Your task to perform on an android device: Play the last video I watched on Youtube Image 0: 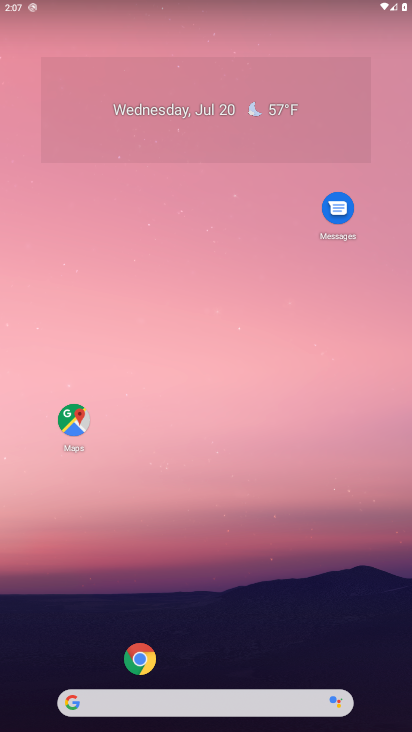
Step 0: drag from (157, 459) to (310, 85)
Your task to perform on an android device: Play the last video I watched on Youtube Image 1: 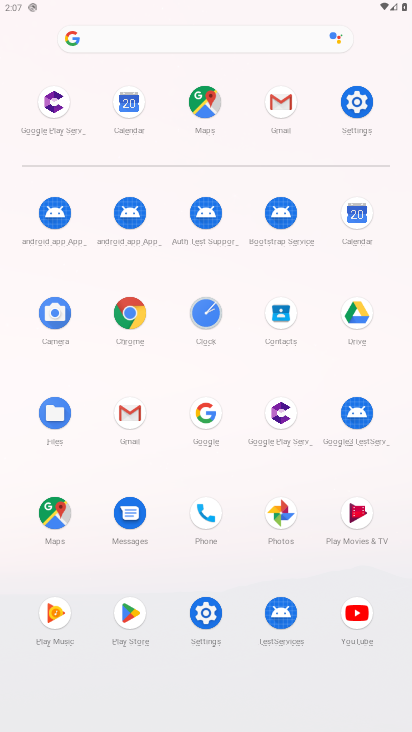
Step 1: click (378, 620)
Your task to perform on an android device: Play the last video I watched on Youtube Image 2: 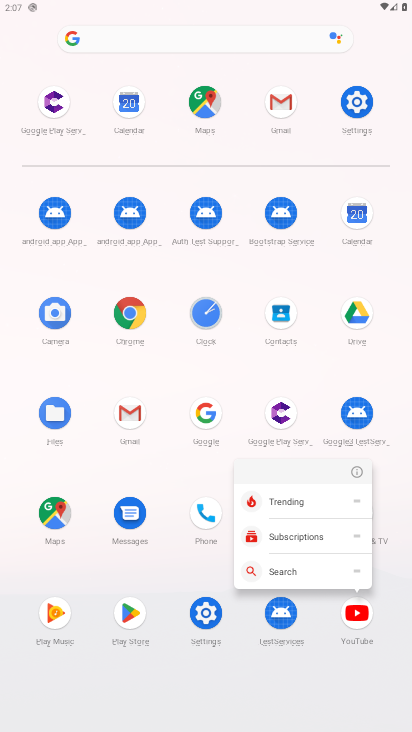
Step 2: click (354, 634)
Your task to perform on an android device: Play the last video I watched on Youtube Image 3: 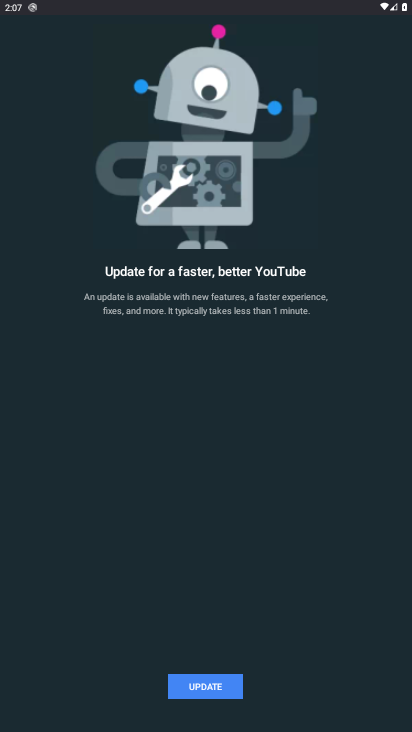
Step 3: task complete